Your task to perform on an android device: remove spam from my inbox in the gmail app Image 0: 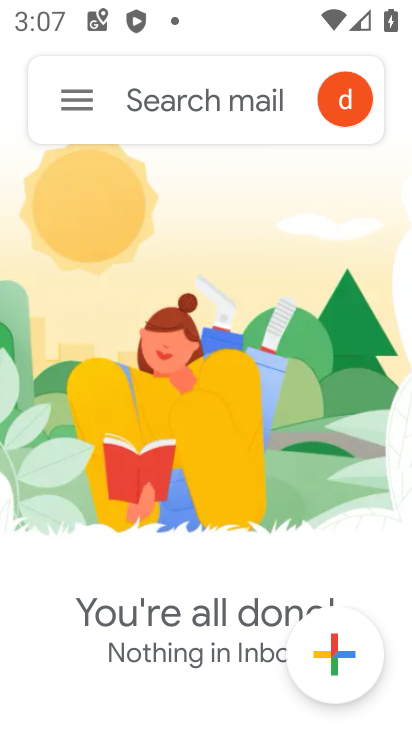
Step 0: click (76, 104)
Your task to perform on an android device: remove spam from my inbox in the gmail app Image 1: 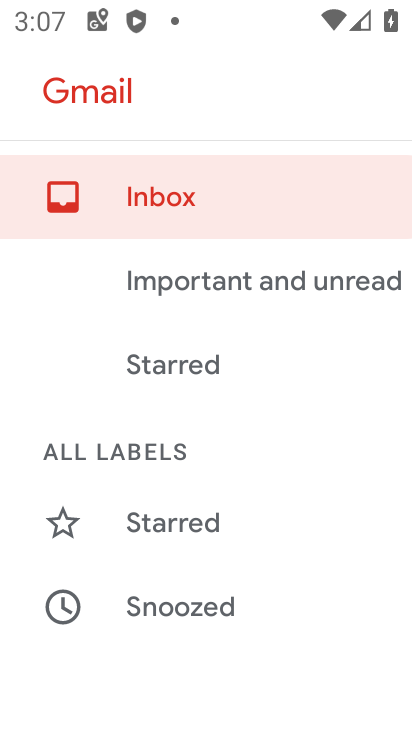
Step 1: drag from (188, 560) to (268, 301)
Your task to perform on an android device: remove spam from my inbox in the gmail app Image 2: 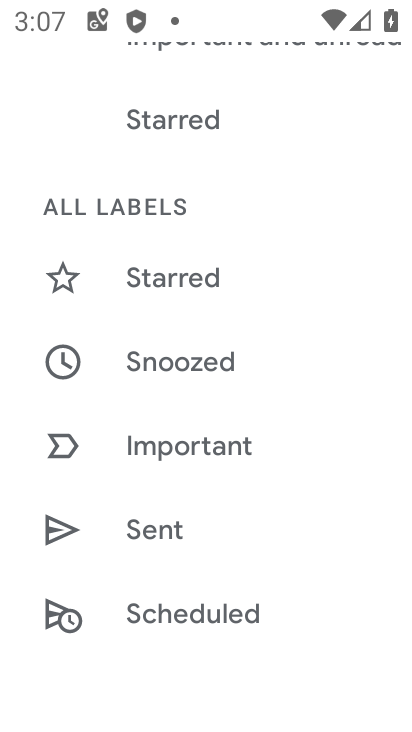
Step 2: drag from (214, 505) to (259, 368)
Your task to perform on an android device: remove spam from my inbox in the gmail app Image 3: 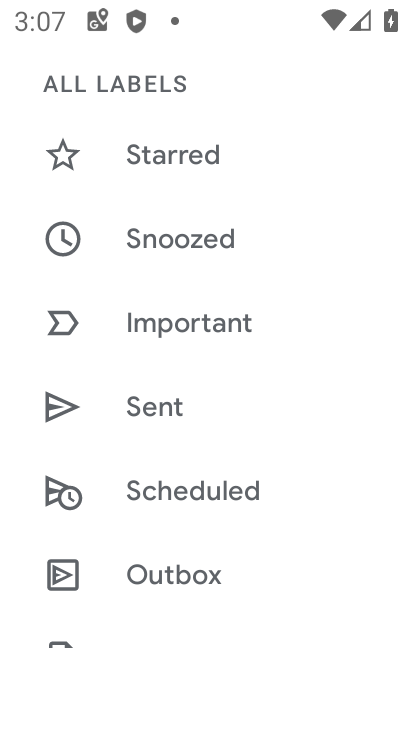
Step 3: drag from (191, 547) to (269, 393)
Your task to perform on an android device: remove spam from my inbox in the gmail app Image 4: 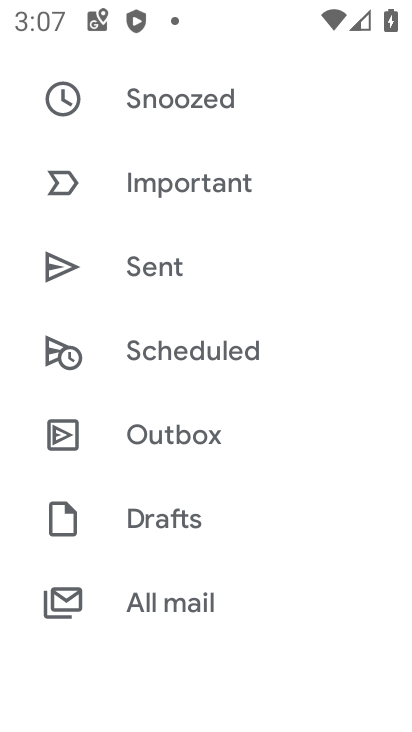
Step 4: drag from (209, 558) to (316, 367)
Your task to perform on an android device: remove spam from my inbox in the gmail app Image 5: 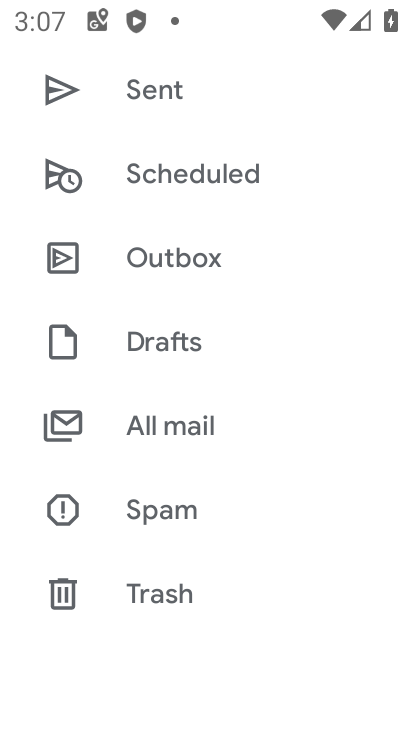
Step 5: click (177, 517)
Your task to perform on an android device: remove spam from my inbox in the gmail app Image 6: 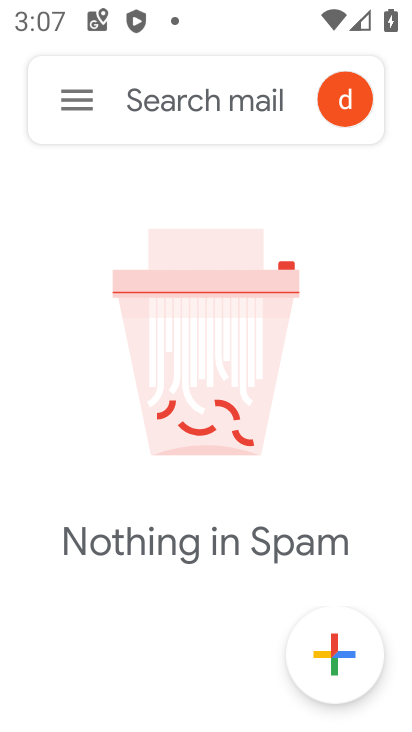
Step 6: task complete